Your task to perform on an android device: What's the weather? Image 0: 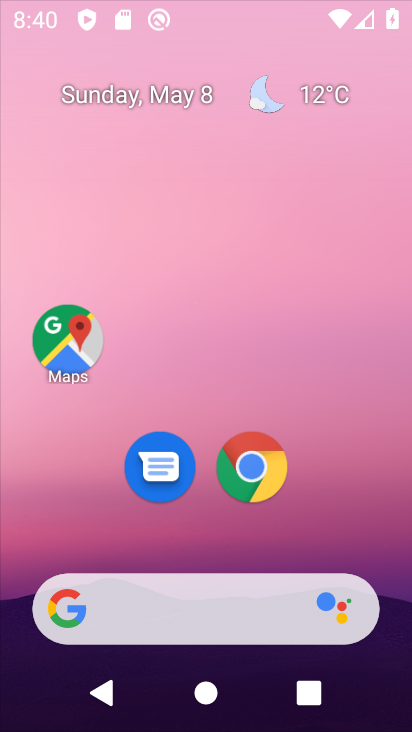
Step 0: drag from (214, 450) to (254, 2)
Your task to perform on an android device: What's the weather? Image 1: 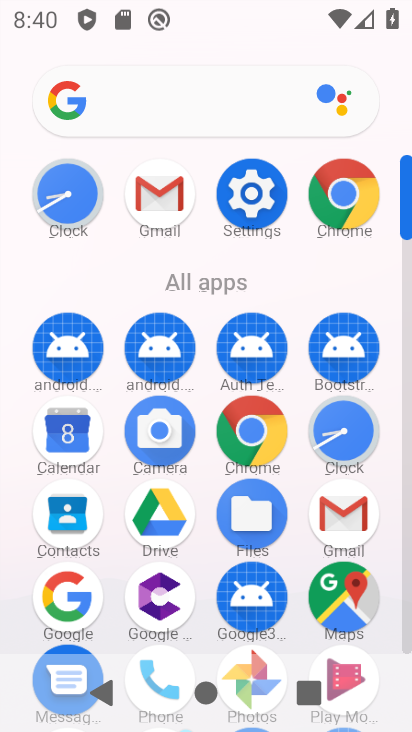
Step 1: press back button
Your task to perform on an android device: What's the weather? Image 2: 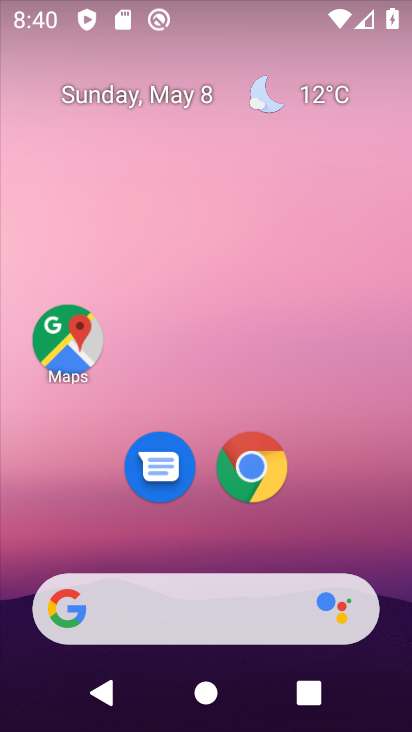
Step 2: click (270, 101)
Your task to perform on an android device: What's the weather? Image 3: 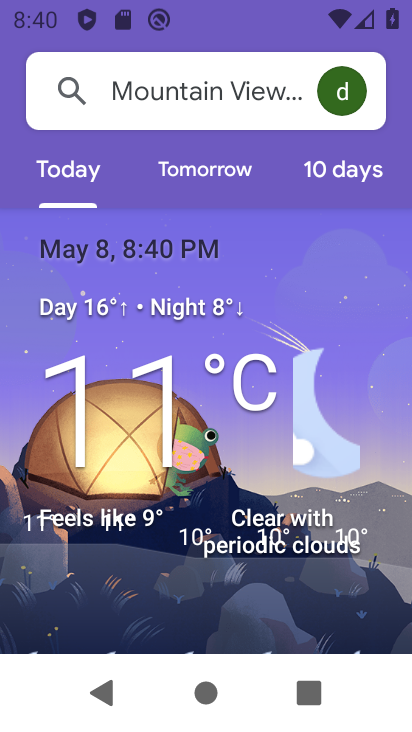
Step 3: task complete